Your task to perform on an android device: Go to eBay Image 0: 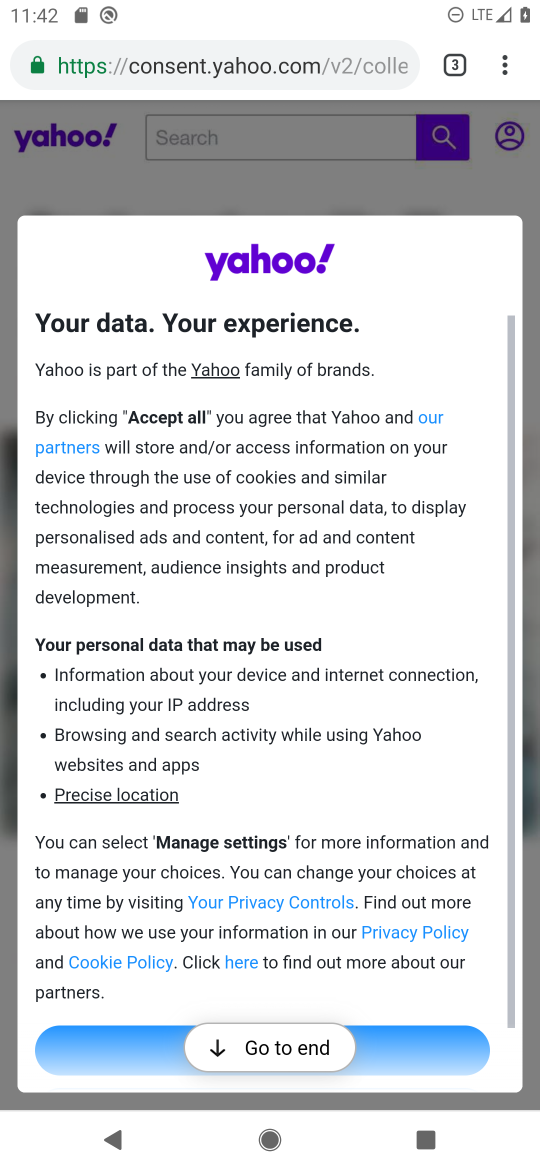
Step 0: click (323, 56)
Your task to perform on an android device: Go to eBay Image 1: 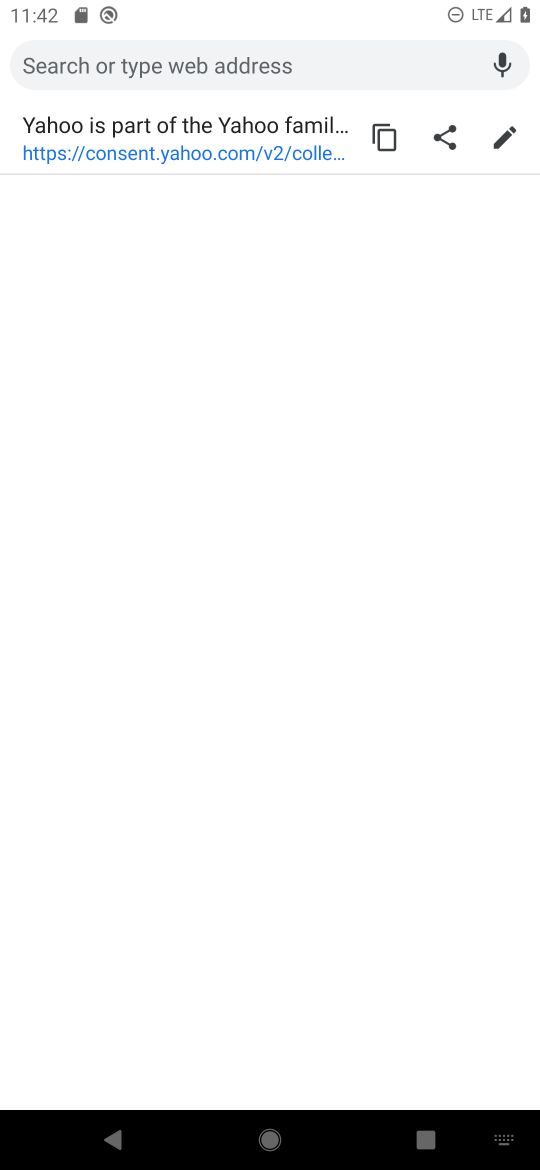
Step 1: type "ebay"
Your task to perform on an android device: Go to eBay Image 2: 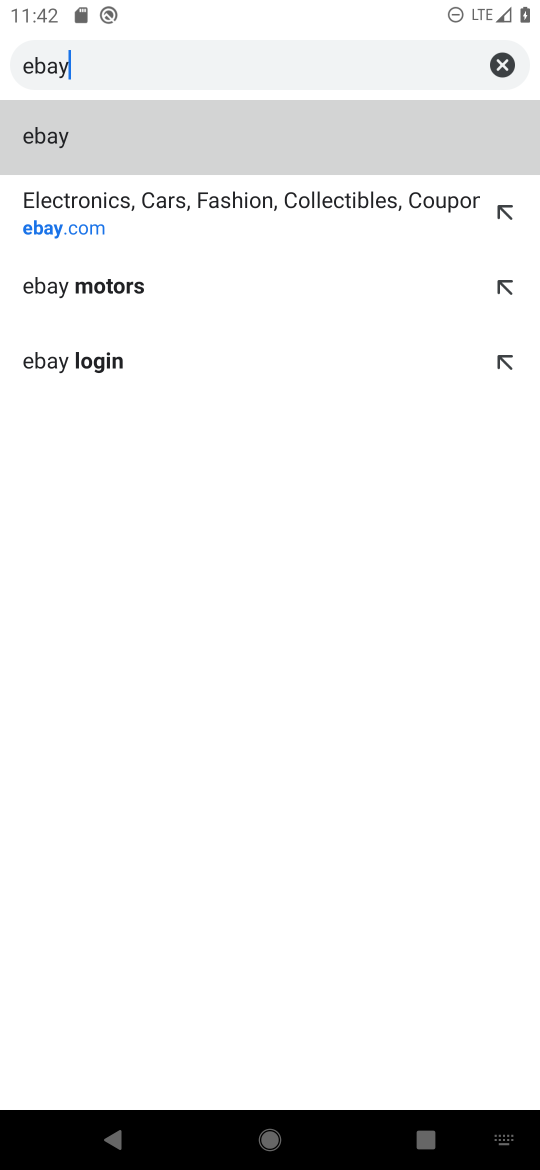
Step 2: click (36, 201)
Your task to perform on an android device: Go to eBay Image 3: 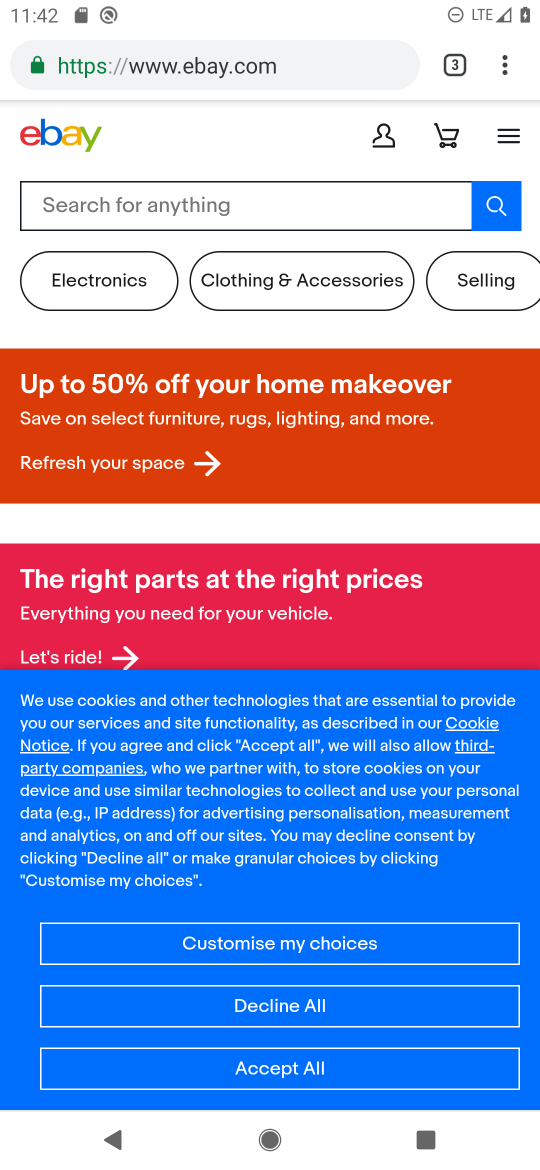
Step 3: task complete